Your task to perform on an android device: Play the latest video from the BBC Image 0: 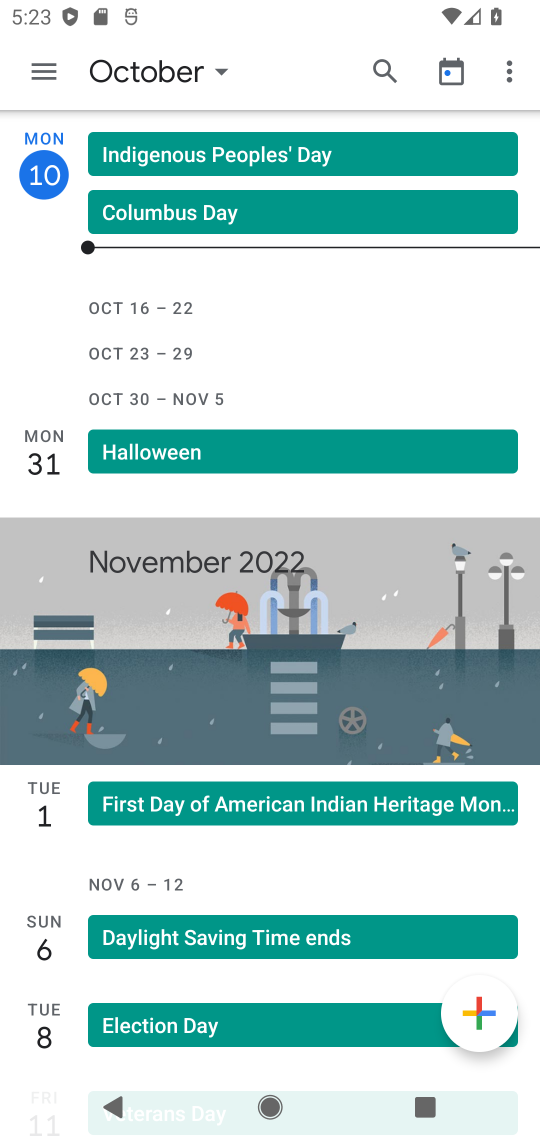
Step 0: press home button
Your task to perform on an android device: Play the latest video from the BBC Image 1: 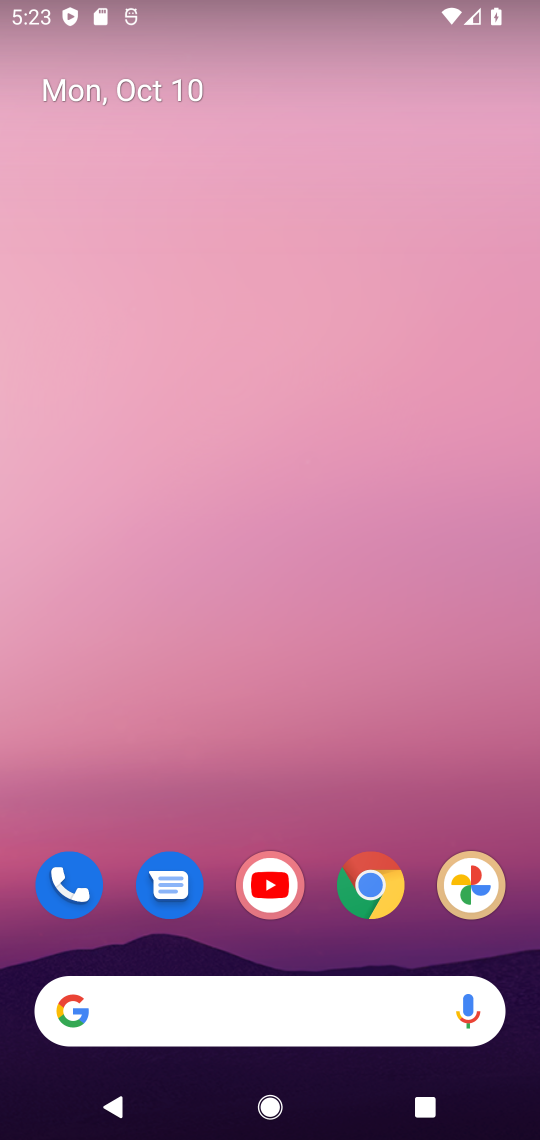
Step 1: click (368, 909)
Your task to perform on an android device: Play the latest video from the BBC Image 2: 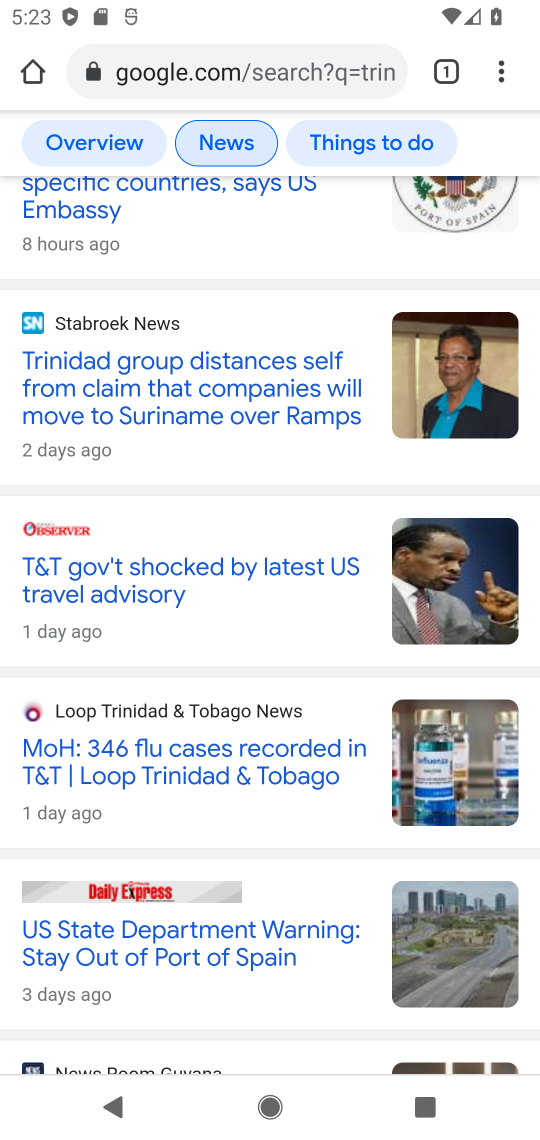
Step 2: click (291, 76)
Your task to perform on an android device: Play the latest video from the BBC Image 3: 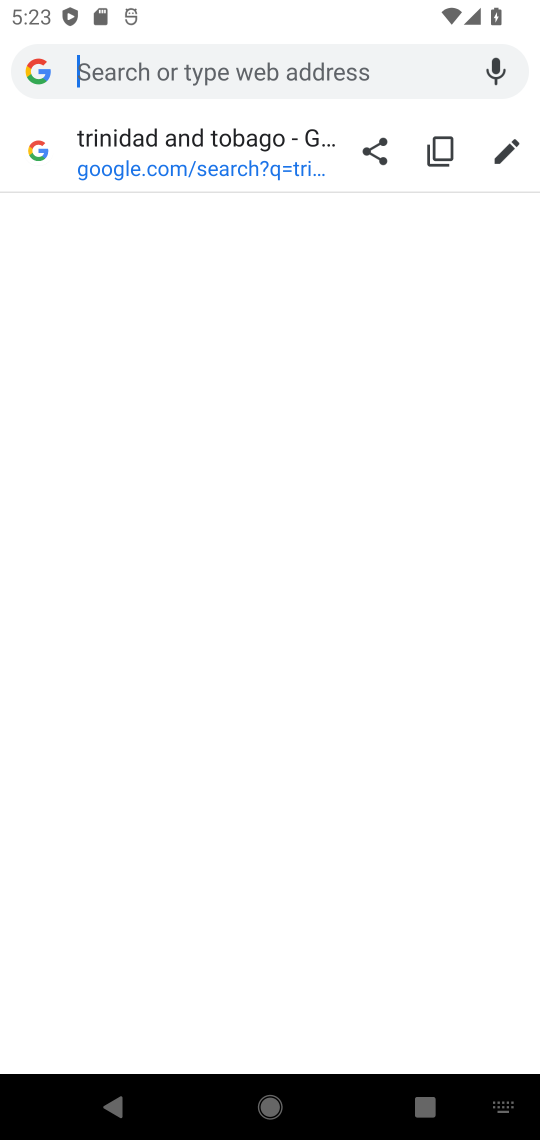
Step 3: type "latest video from the BBC"
Your task to perform on an android device: Play the latest video from the BBC Image 4: 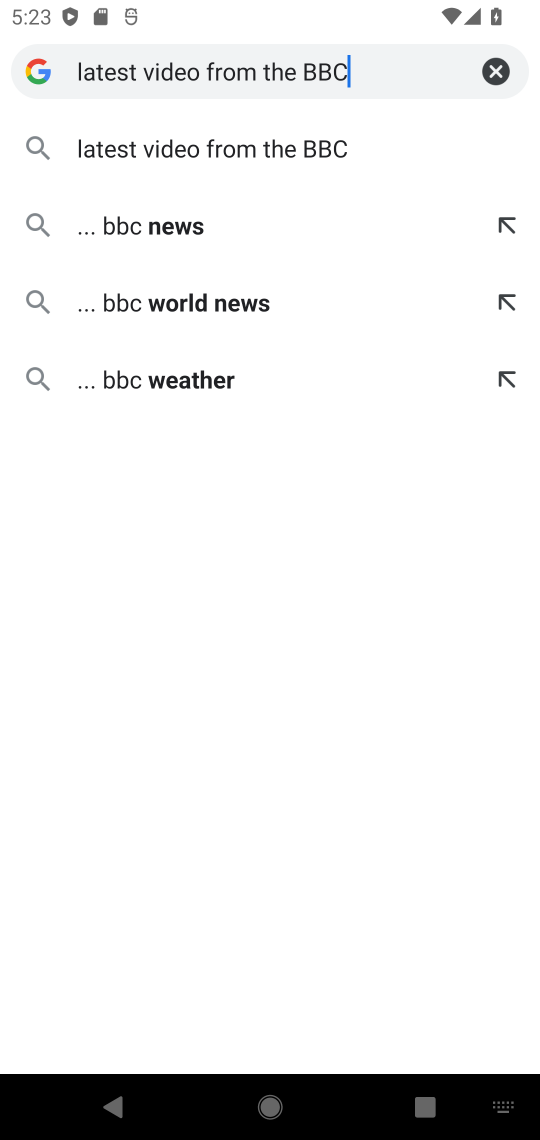
Step 4: click (313, 143)
Your task to perform on an android device: Play the latest video from the BBC Image 5: 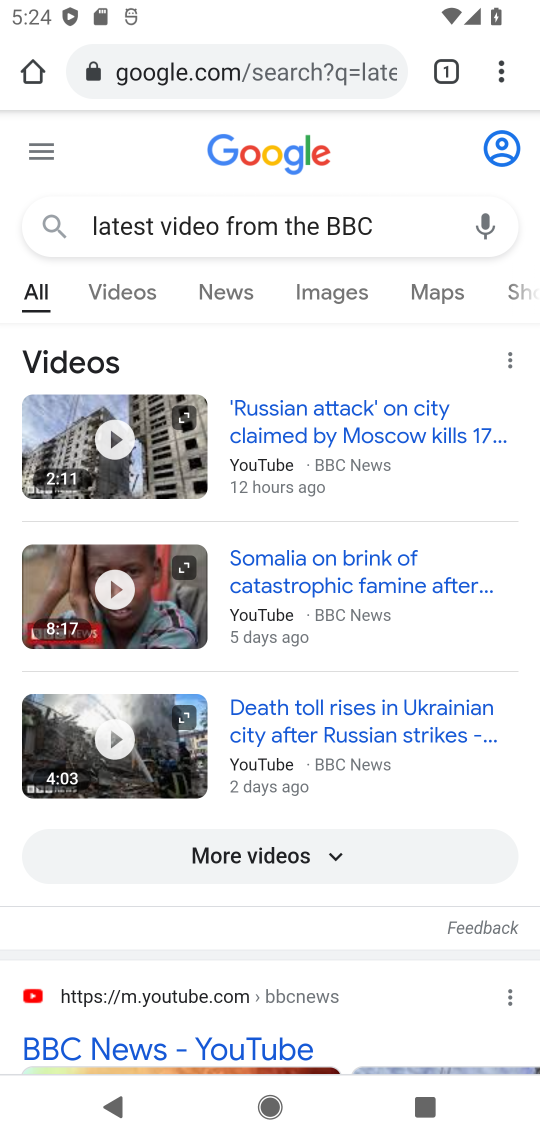
Step 5: click (129, 299)
Your task to perform on an android device: Play the latest video from the BBC Image 6: 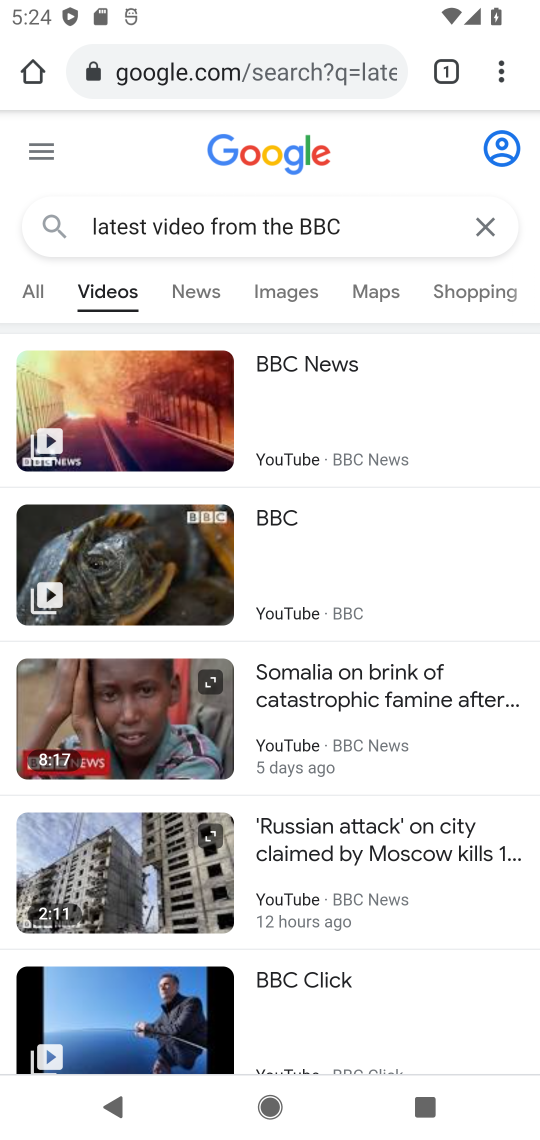
Step 6: click (43, 292)
Your task to perform on an android device: Play the latest video from the BBC Image 7: 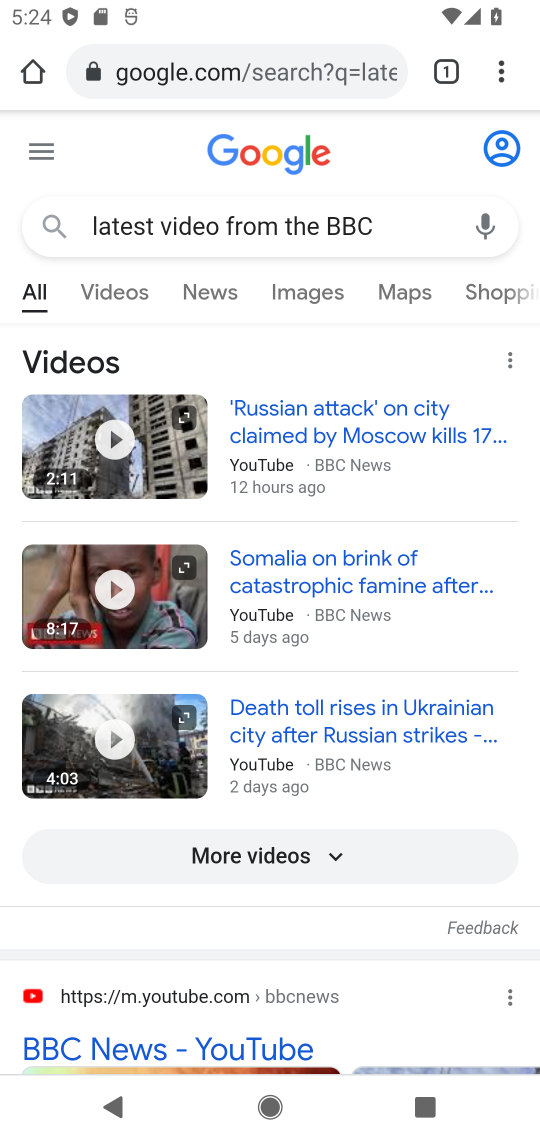
Step 7: drag from (389, 959) to (387, 393)
Your task to perform on an android device: Play the latest video from the BBC Image 8: 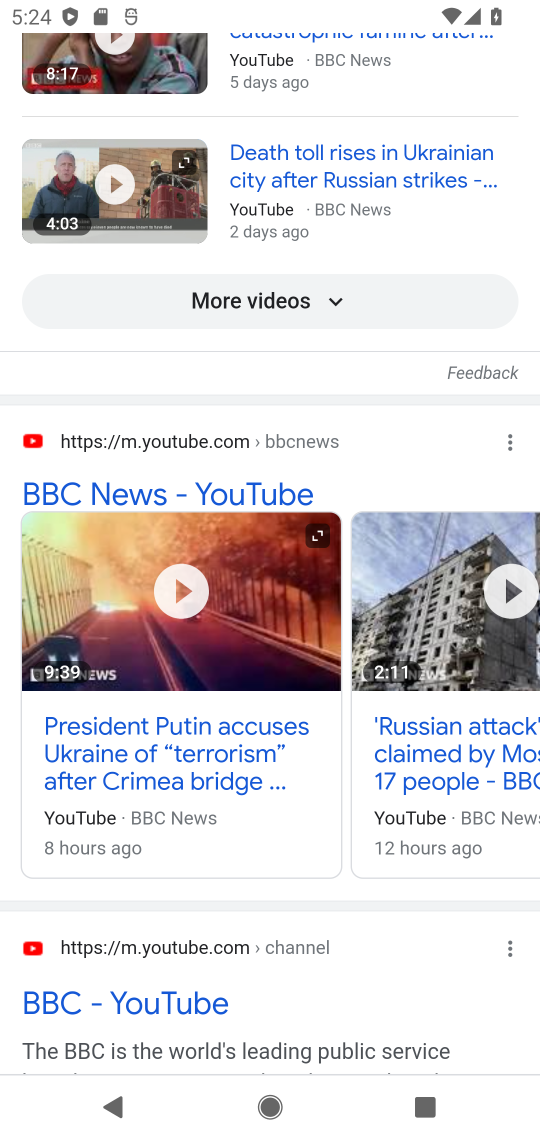
Step 8: click (180, 599)
Your task to perform on an android device: Play the latest video from the BBC Image 9: 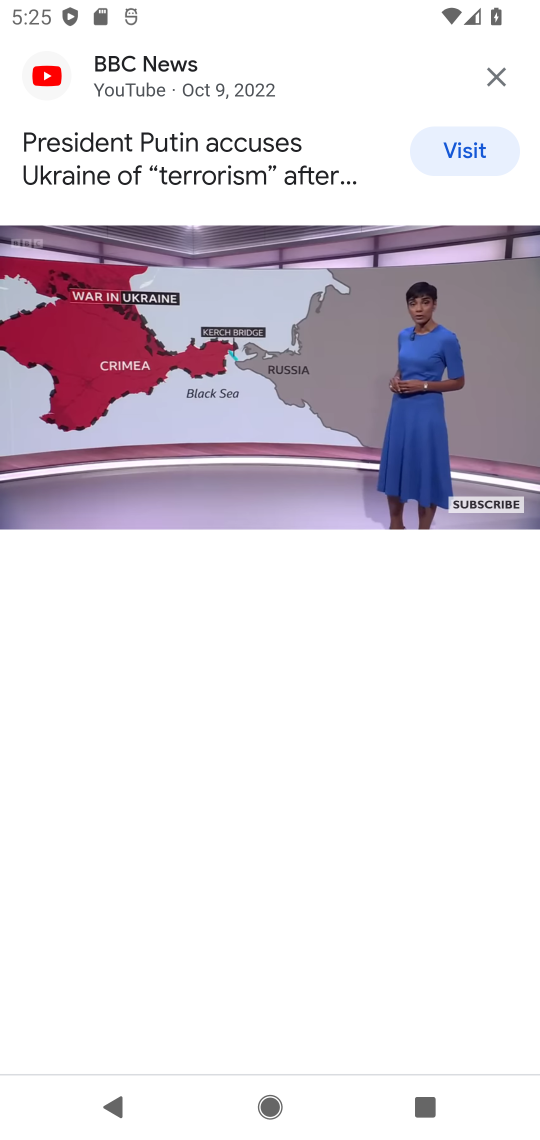
Step 9: task complete